Your task to perform on an android device: show emergency info Image 0: 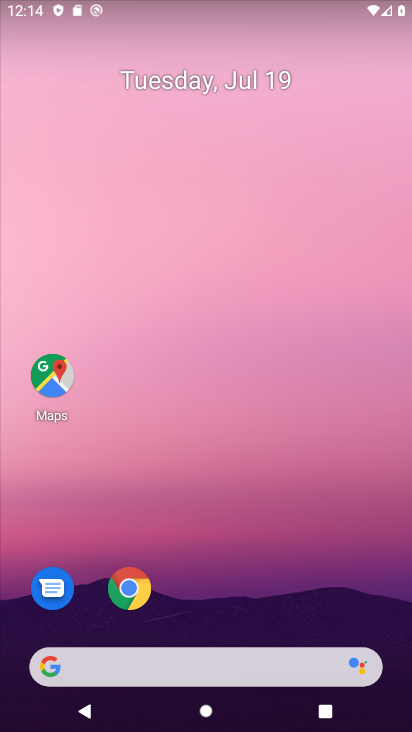
Step 0: drag from (220, 633) to (209, 37)
Your task to perform on an android device: show emergency info Image 1: 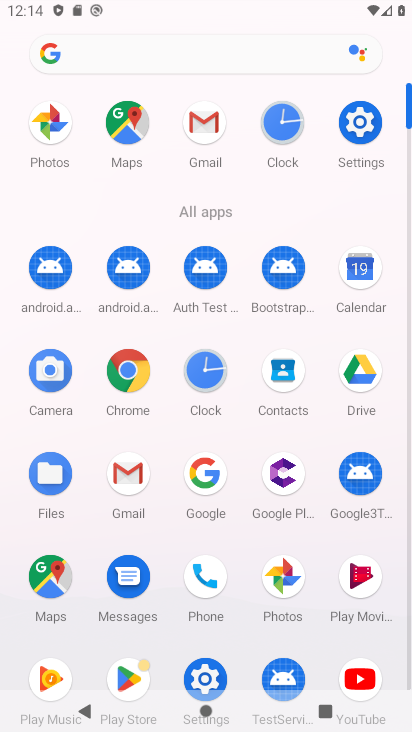
Step 1: click (367, 126)
Your task to perform on an android device: show emergency info Image 2: 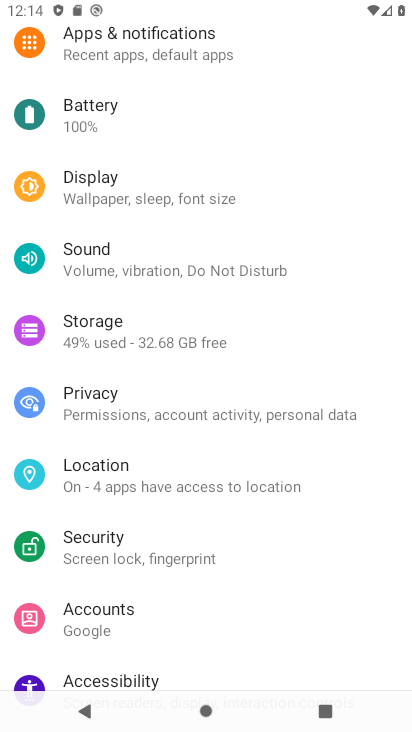
Step 2: drag from (270, 630) to (191, 157)
Your task to perform on an android device: show emergency info Image 3: 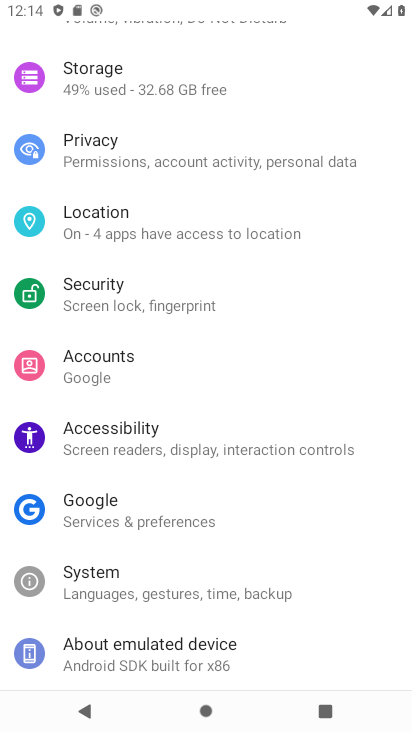
Step 3: click (224, 653)
Your task to perform on an android device: show emergency info Image 4: 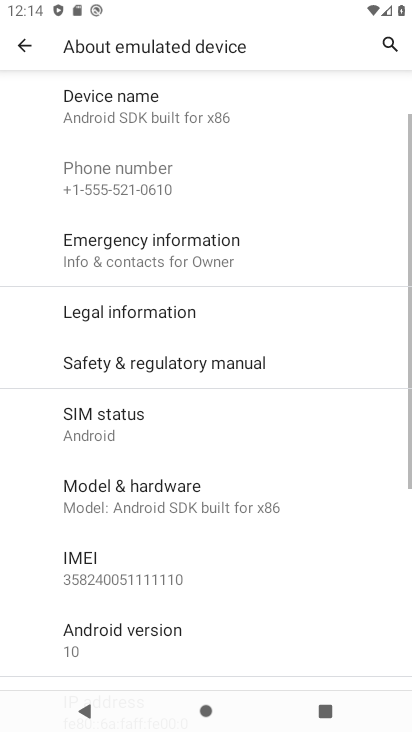
Step 4: click (234, 249)
Your task to perform on an android device: show emergency info Image 5: 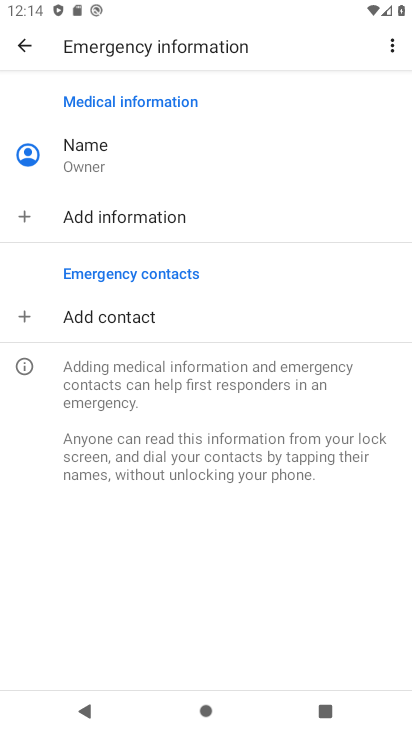
Step 5: task complete